Your task to perform on an android device: turn notification dots off Image 0: 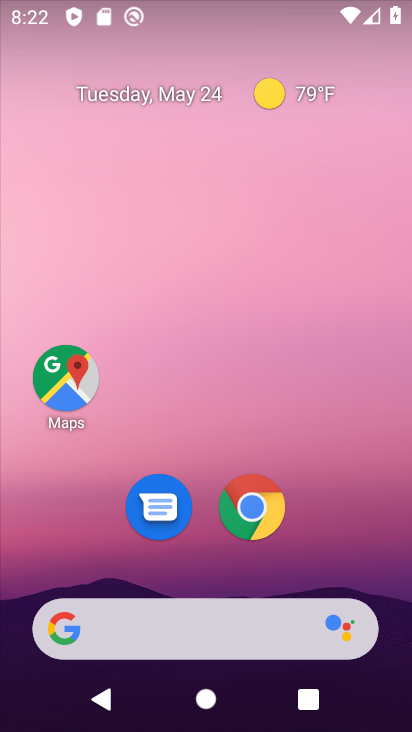
Step 0: click (245, 263)
Your task to perform on an android device: turn notification dots off Image 1: 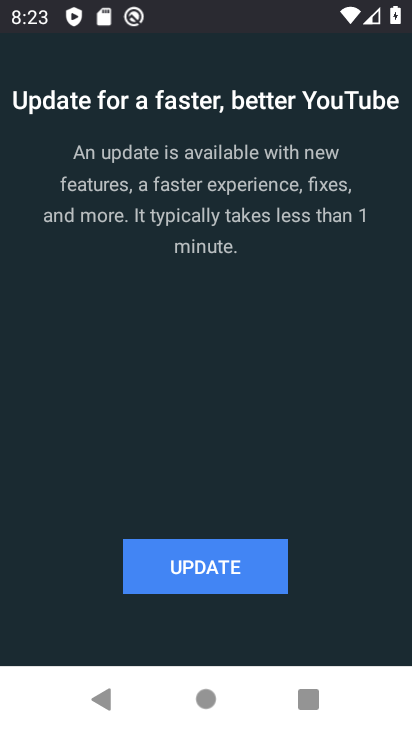
Step 1: press back button
Your task to perform on an android device: turn notification dots off Image 2: 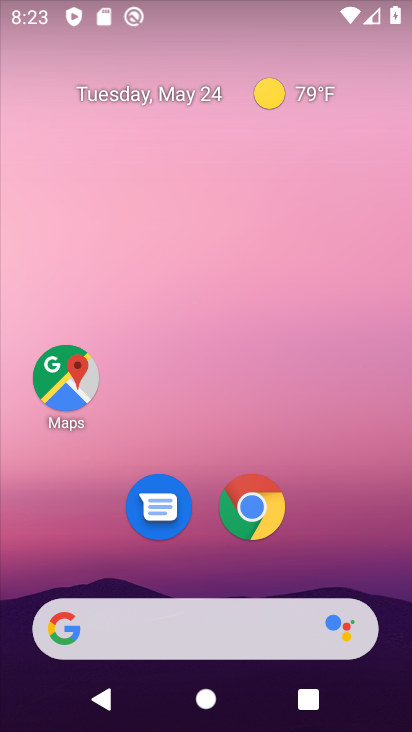
Step 2: drag from (258, 691) to (238, 76)
Your task to perform on an android device: turn notification dots off Image 3: 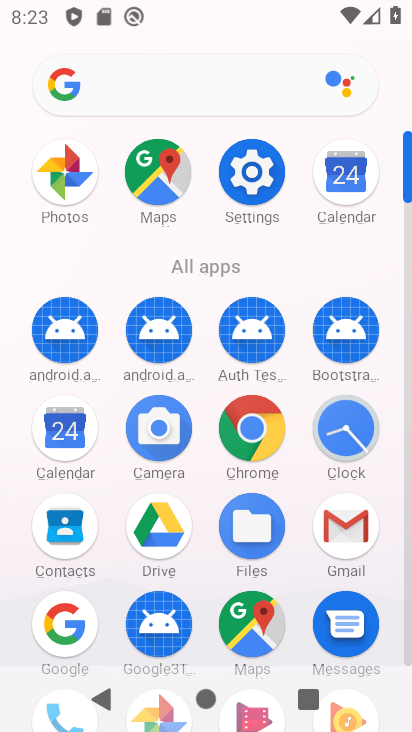
Step 3: click (250, 170)
Your task to perform on an android device: turn notification dots off Image 4: 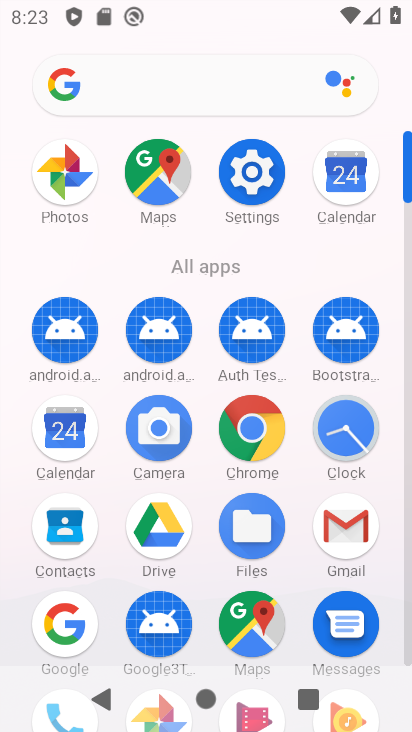
Step 4: click (251, 169)
Your task to perform on an android device: turn notification dots off Image 5: 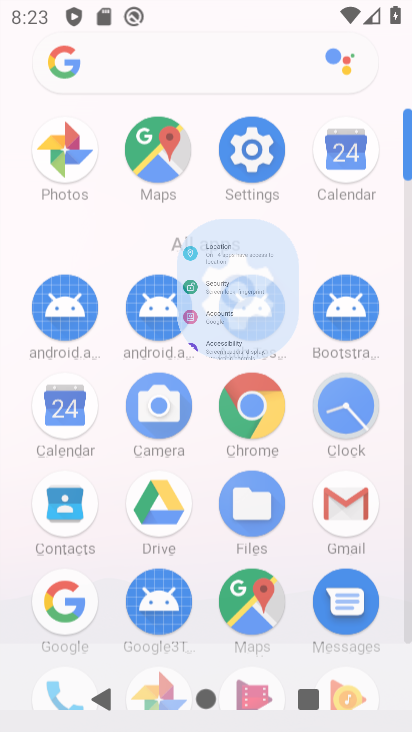
Step 5: click (251, 169)
Your task to perform on an android device: turn notification dots off Image 6: 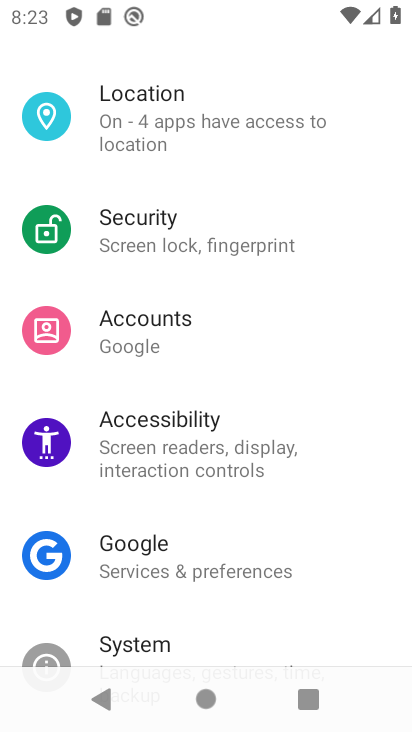
Step 6: drag from (172, 189) to (176, 449)
Your task to perform on an android device: turn notification dots off Image 7: 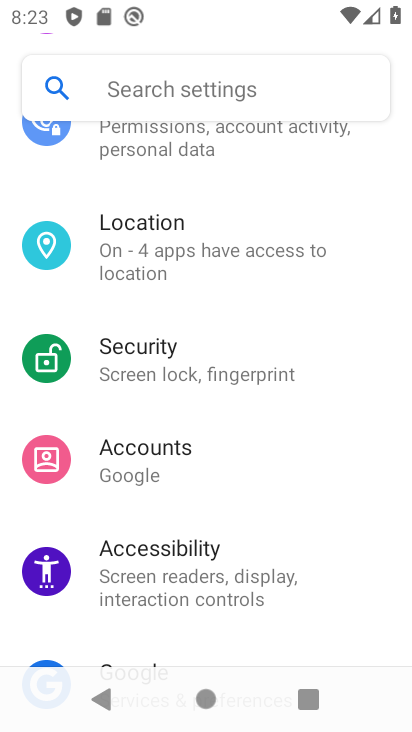
Step 7: drag from (173, 176) to (175, 528)
Your task to perform on an android device: turn notification dots off Image 8: 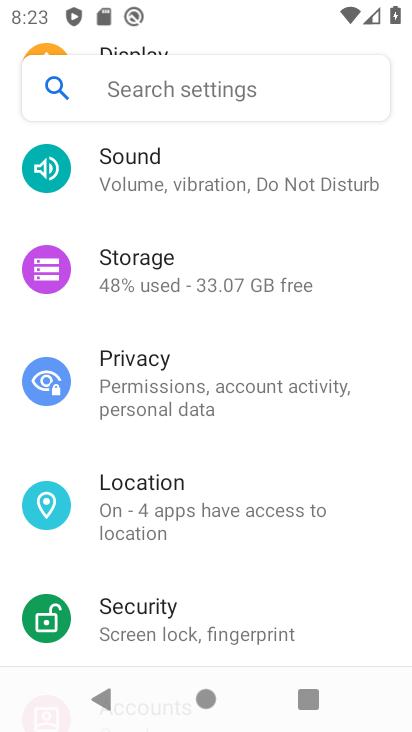
Step 8: drag from (175, 328) to (133, 649)
Your task to perform on an android device: turn notification dots off Image 9: 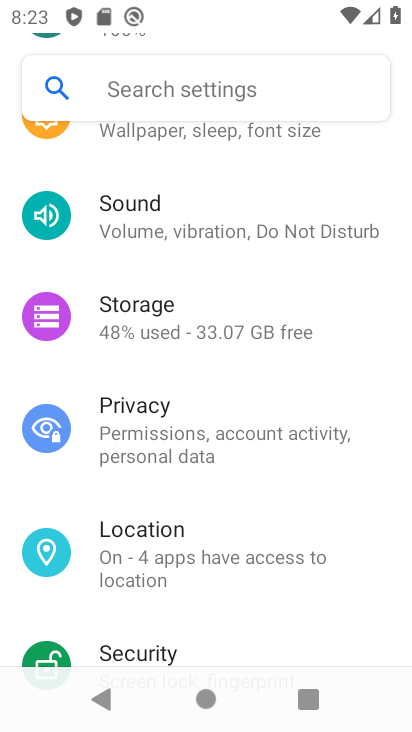
Step 9: drag from (212, 219) to (217, 657)
Your task to perform on an android device: turn notification dots off Image 10: 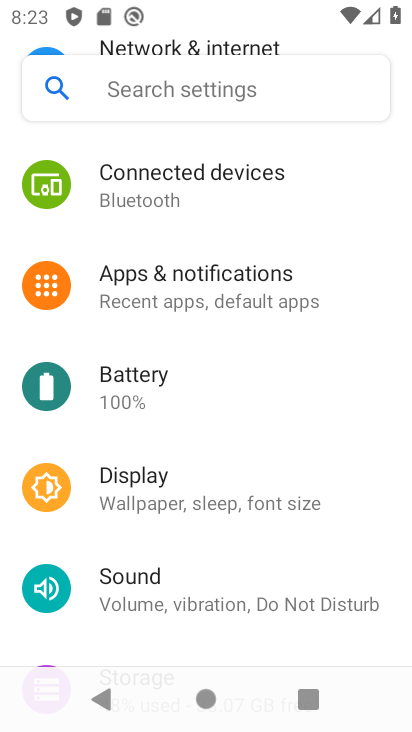
Step 10: drag from (217, 232) to (181, 616)
Your task to perform on an android device: turn notification dots off Image 11: 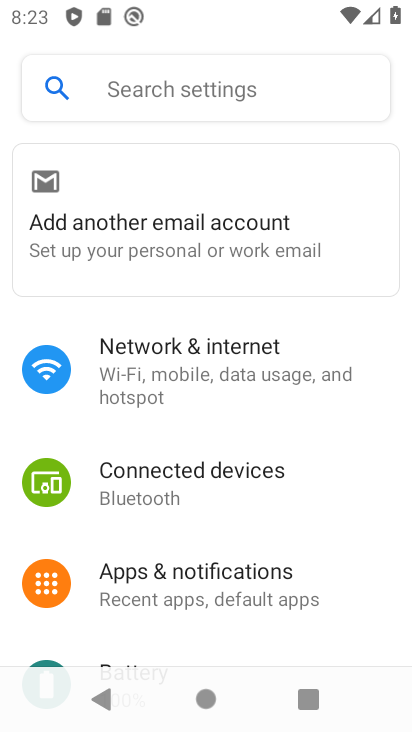
Step 11: drag from (226, 192) to (231, 616)
Your task to perform on an android device: turn notification dots off Image 12: 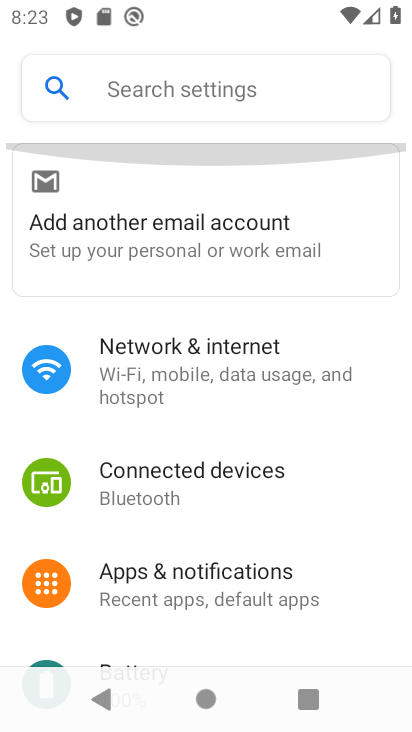
Step 12: drag from (233, 375) to (195, 665)
Your task to perform on an android device: turn notification dots off Image 13: 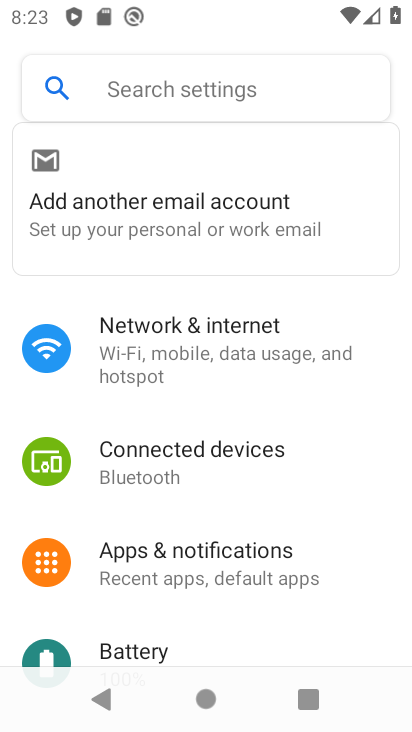
Step 13: click (225, 581)
Your task to perform on an android device: turn notification dots off Image 14: 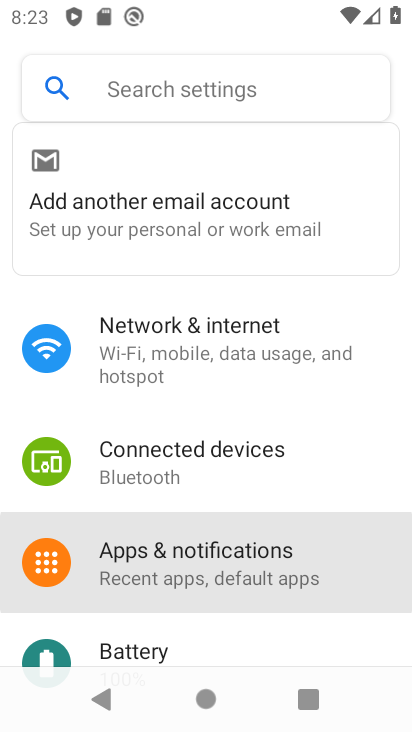
Step 14: click (228, 588)
Your task to perform on an android device: turn notification dots off Image 15: 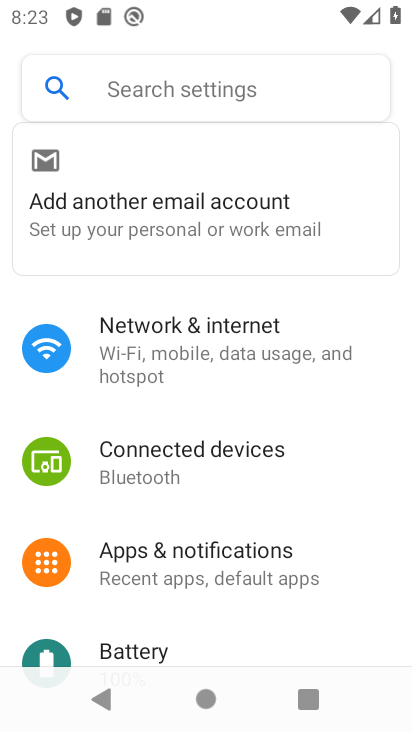
Step 15: click (236, 600)
Your task to perform on an android device: turn notification dots off Image 16: 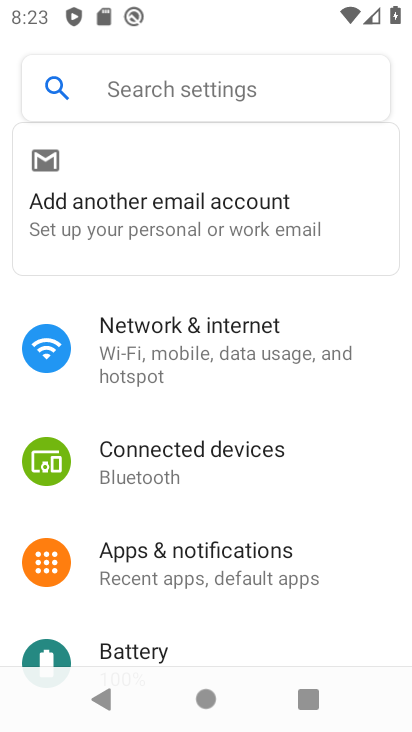
Step 16: click (252, 581)
Your task to perform on an android device: turn notification dots off Image 17: 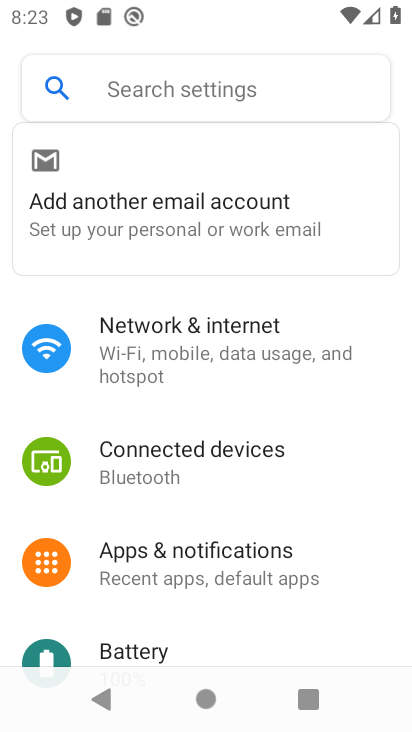
Step 17: click (258, 575)
Your task to perform on an android device: turn notification dots off Image 18: 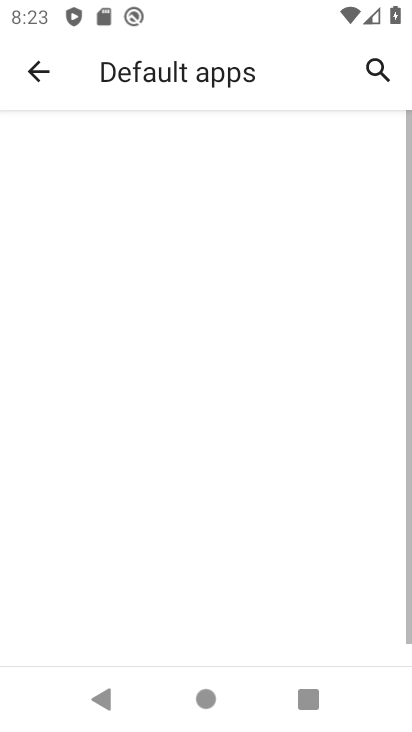
Step 18: click (73, 473)
Your task to perform on an android device: turn notification dots off Image 19: 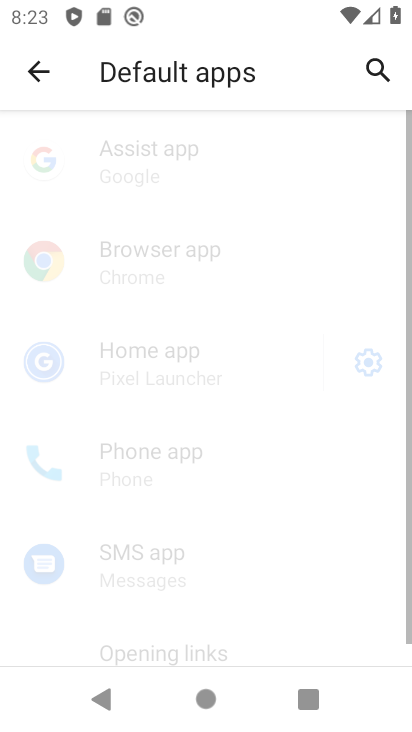
Step 19: click (73, 473)
Your task to perform on an android device: turn notification dots off Image 20: 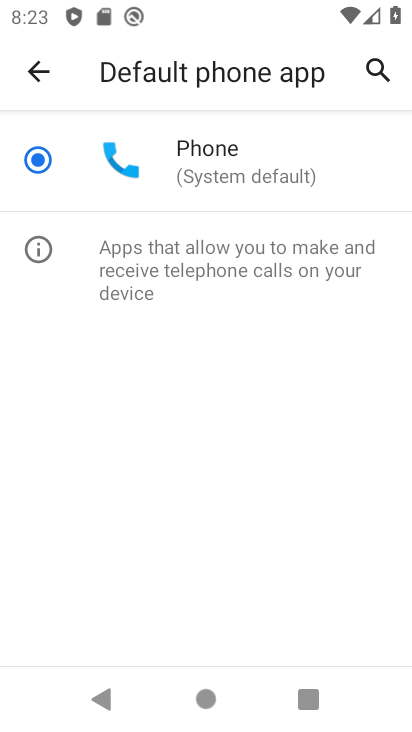
Step 20: click (43, 72)
Your task to perform on an android device: turn notification dots off Image 21: 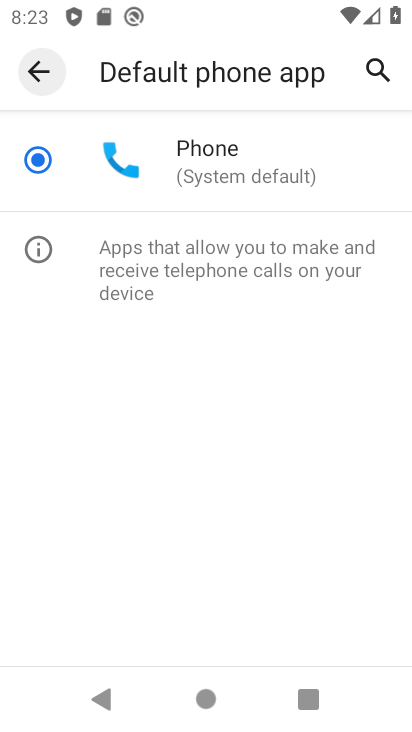
Step 21: click (41, 74)
Your task to perform on an android device: turn notification dots off Image 22: 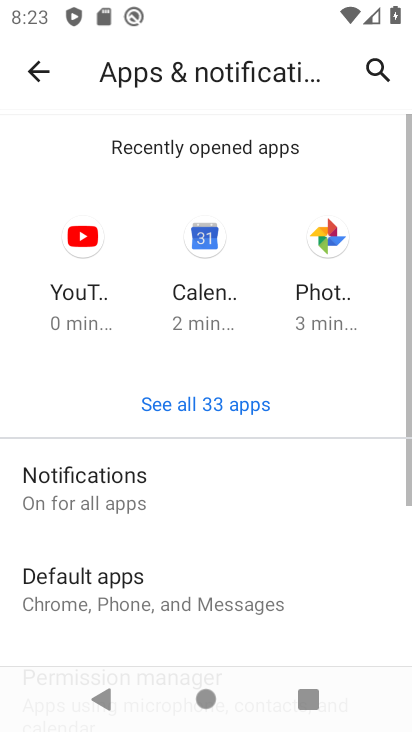
Step 22: click (93, 488)
Your task to perform on an android device: turn notification dots off Image 23: 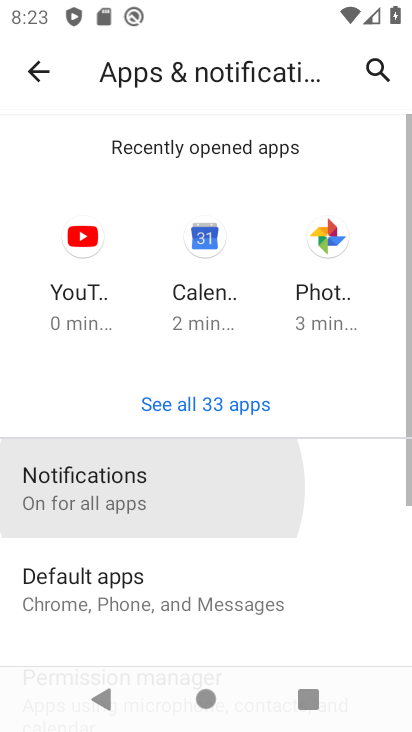
Step 23: click (92, 487)
Your task to perform on an android device: turn notification dots off Image 24: 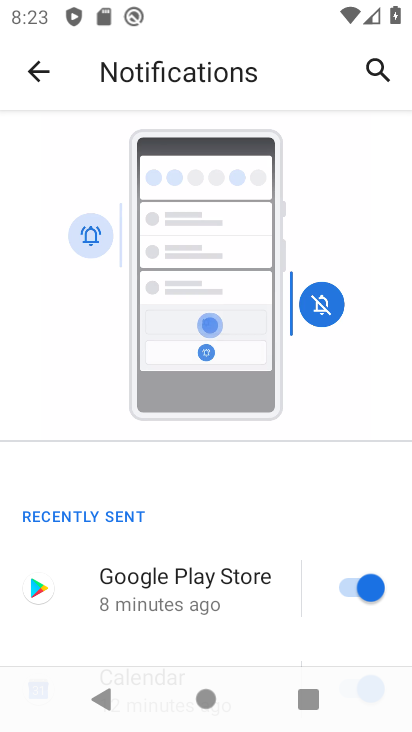
Step 24: drag from (182, 523) to (216, 126)
Your task to perform on an android device: turn notification dots off Image 25: 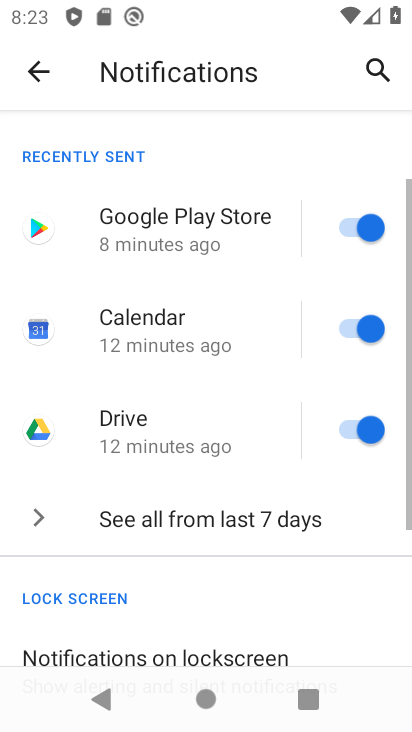
Step 25: drag from (265, 496) to (206, 92)
Your task to perform on an android device: turn notification dots off Image 26: 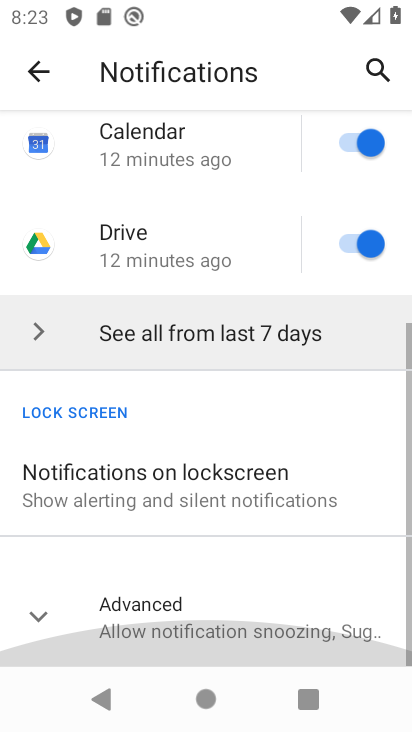
Step 26: drag from (208, 546) to (182, 180)
Your task to perform on an android device: turn notification dots off Image 27: 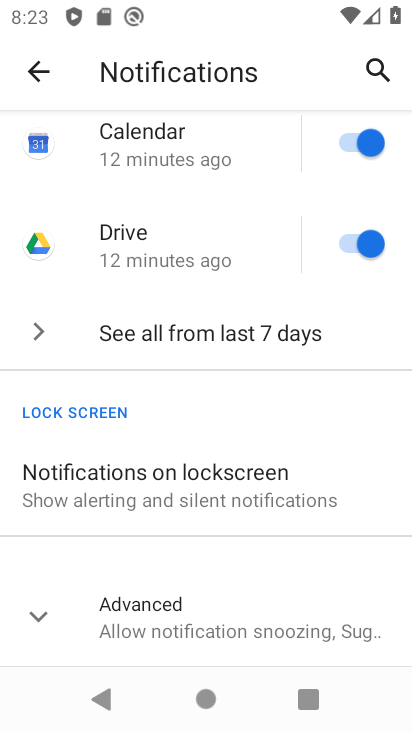
Step 27: click (171, 494)
Your task to perform on an android device: turn notification dots off Image 28: 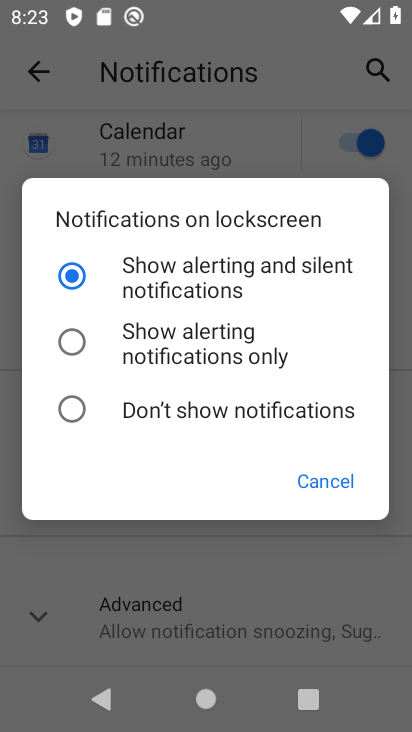
Step 28: click (44, 72)
Your task to perform on an android device: turn notification dots off Image 29: 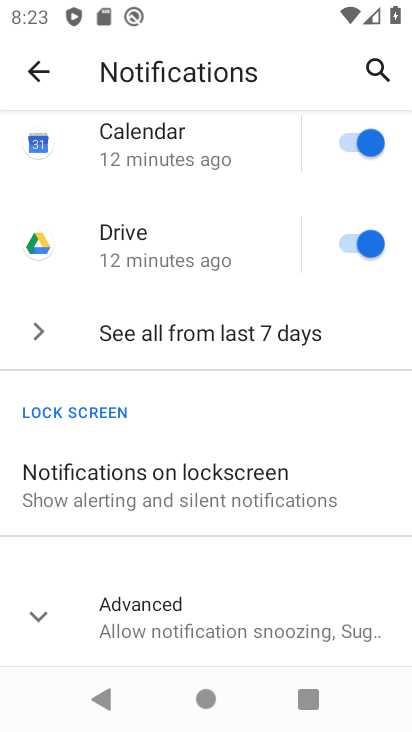
Step 29: click (166, 631)
Your task to perform on an android device: turn notification dots off Image 30: 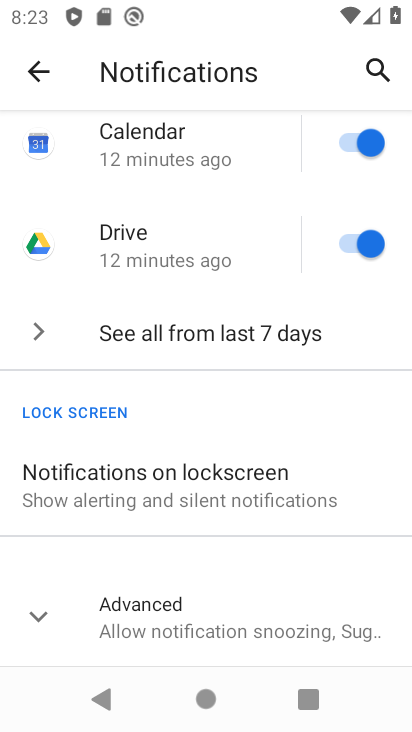
Step 30: click (166, 631)
Your task to perform on an android device: turn notification dots off Image 31: 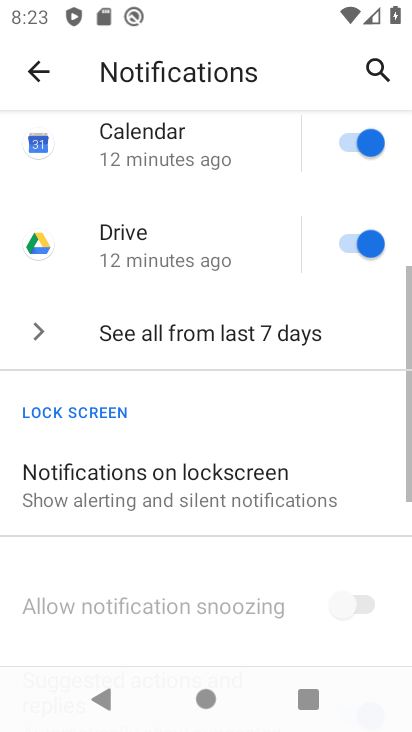
Step 31: click (171, 625)
Your task to perform on an android device: turn notification dots off Image 32: 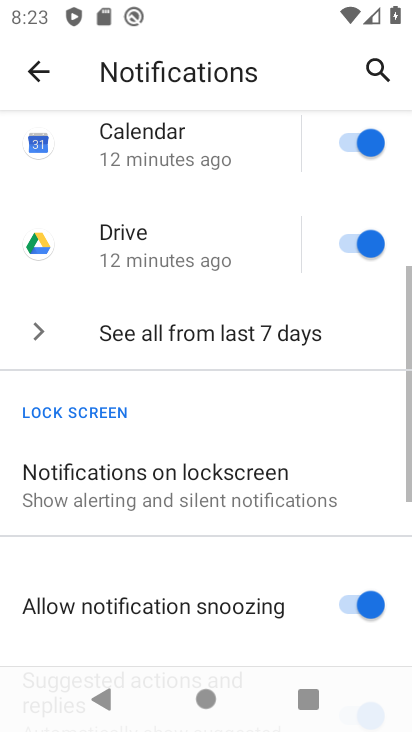
Step 32: drag from (240, 572) to (247, 308)
Your task to perform on an android device: turn notification dots off Image 33: 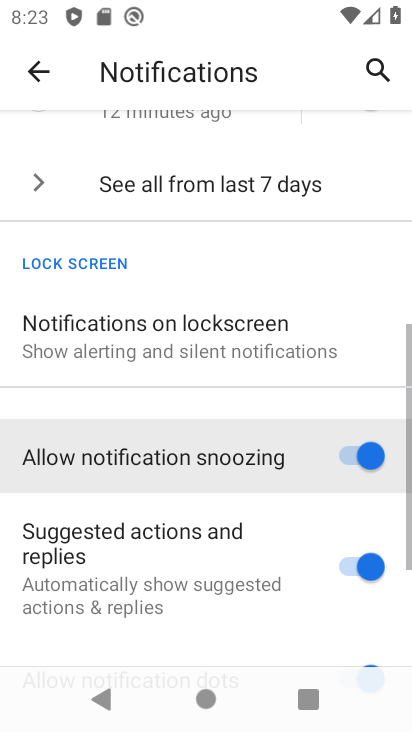
Step 33: drag from (276, 523) to (254, 179)
Your task to perform on an android device: turn notification dots off Image 34: 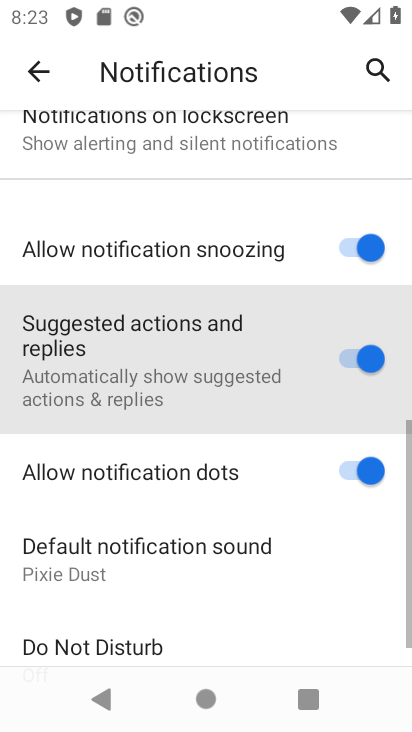
Step 34: drag from (273, 504) to (273, 158)
Your task to perform on an android device: turn notification dots off Image 35: 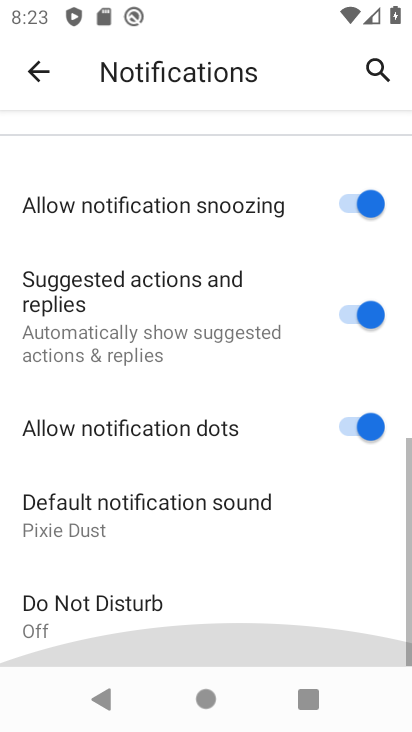
Step 35: drag from (225, 552) to (225, 155)
Your task to perform on an android device: turn notification dots off Image 36: 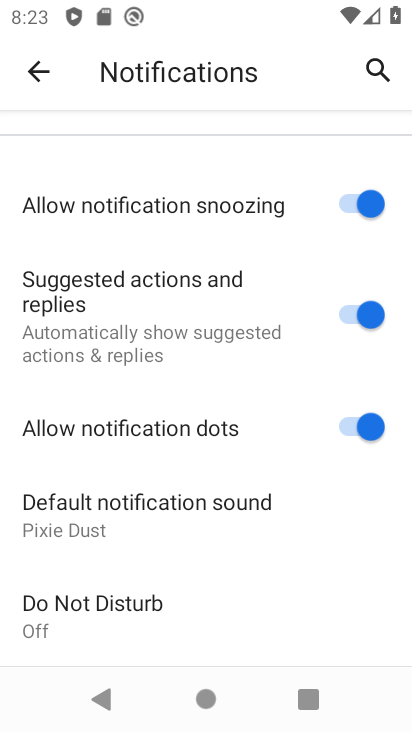
Step 36: click (377, 428)
Your task to perform on an android device: turn notification dots off Image 37: 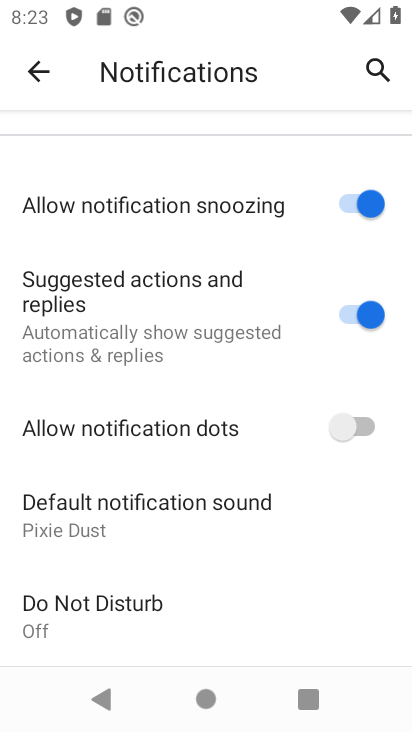
Step 37: task complete